Your task to perform on an android device: delete browsing data in the chrome app Image 0: 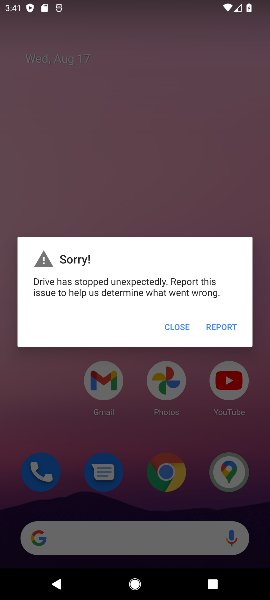
Step 0: click (172, 322)
Your task to perform on an android device: delete browsing data in the chrome app Image 1: 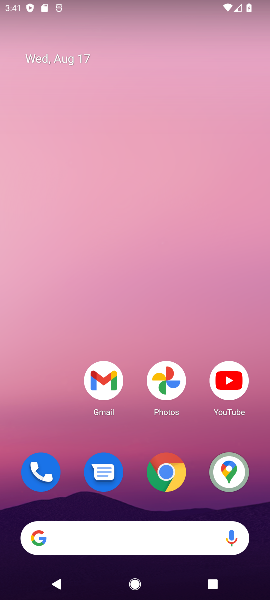
Step 1: click (184, 482)
Your task to perform on an android device: delete browsing data in the chrome app Image 2: 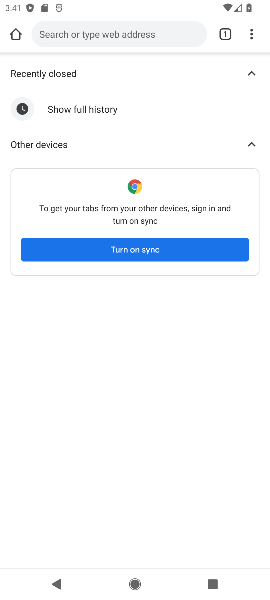
Step 2: click (250, 36)
Your task to perform on an android device: delete browsing data in the chrome app Image 3: 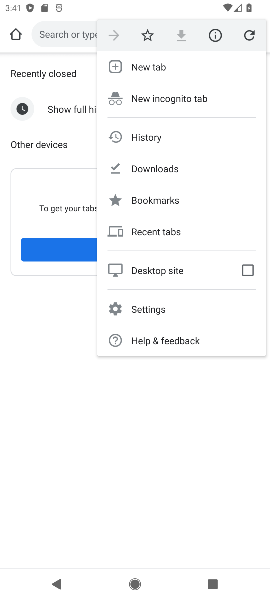
Step 3: click (137, 133)
Your task to perform on an android device: delete browsing data in the chrome app Image 4: 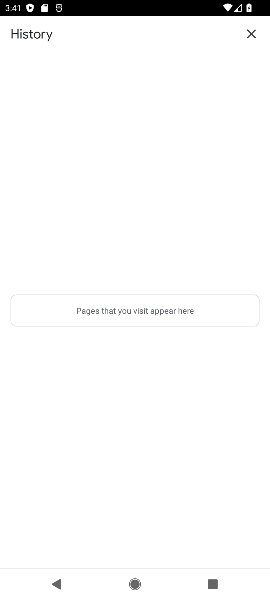
Step 4: task complete